Your task to perform on an android device: Open Google Maps and go to "Timeline" Image 0: 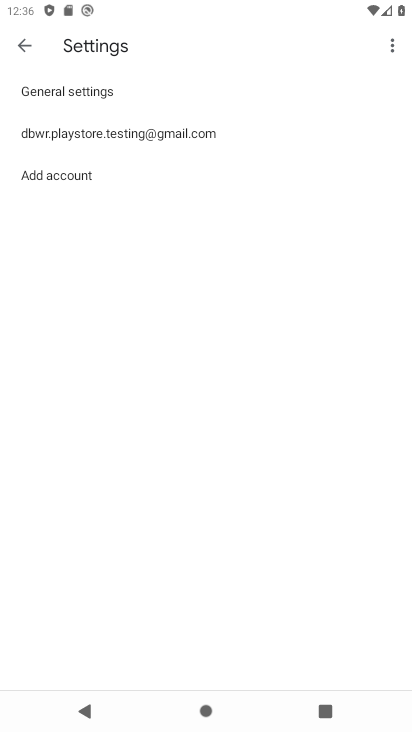
Step 0: click (20, 43)
Your task to perform on an android device: Open Google Maps and go to "Timeline" Image 1: 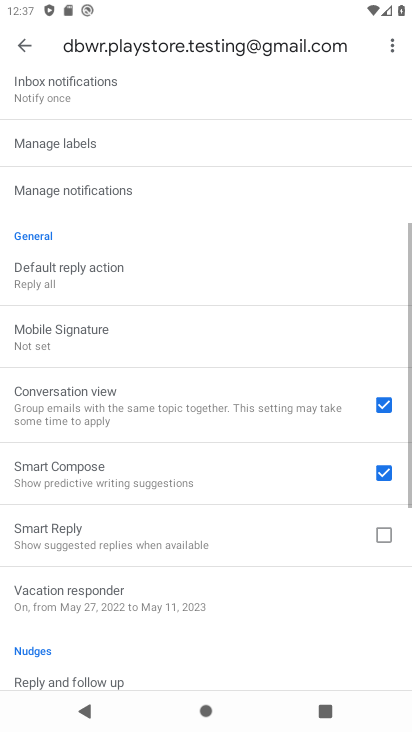
Step 1: press home button
Your task to perform on an android device: Open Google Maps and go to "Timeline" Image 2: 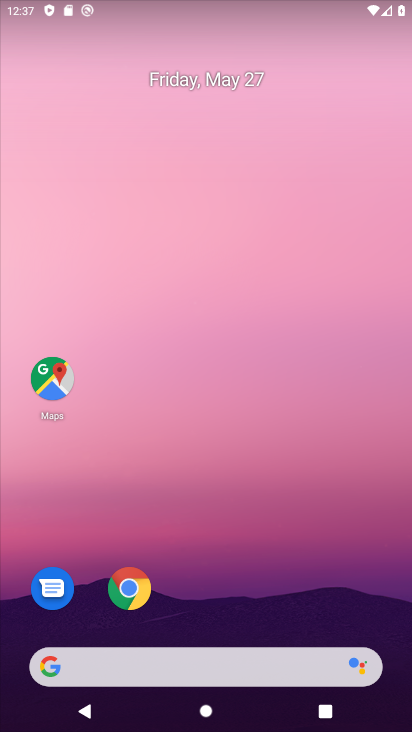
Step 2: drag from (204, 602) to (168, 89)
Your task to perform on an android device: Open Google Maps and go to "Timeline" Image 3: 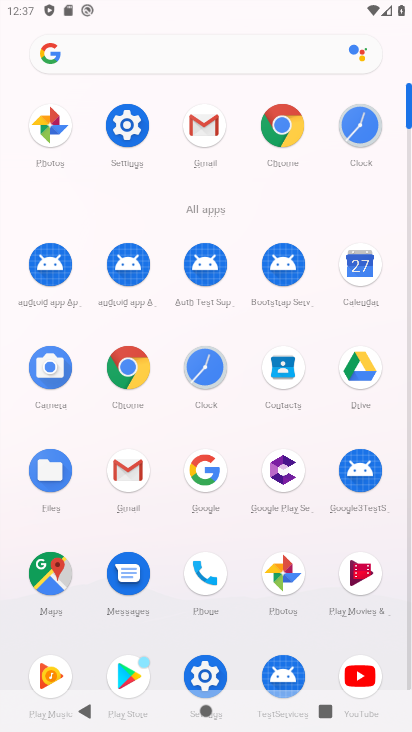
Step 3: click (54, 571)
Your task to perform on an android device: Open Google Maps and go to "Timeline" Image 4: 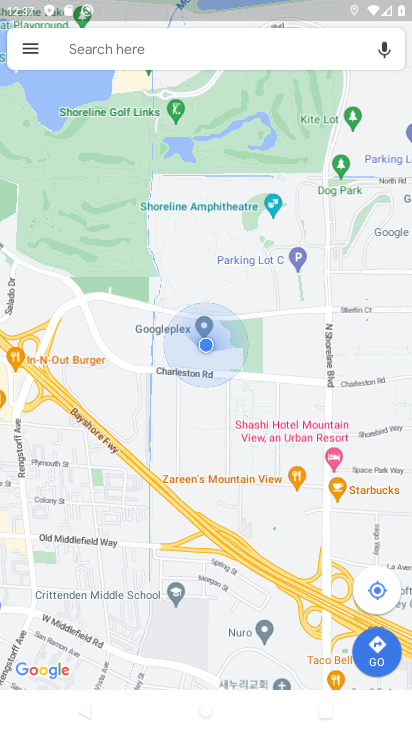
Step 4: click (23, 53)
Your task to perform on an android device: Open Google Maps and go to "Timeline" Image 5: 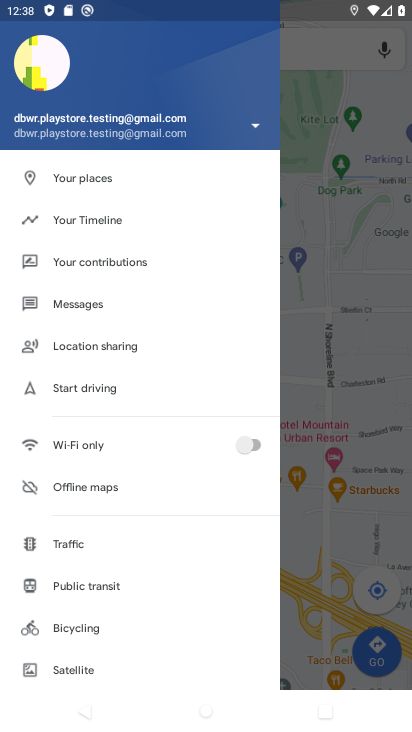
Step 5: click (77, 224)
Your task to perform on an android device: Open Google Maps and go to "Timeline" Image 6: 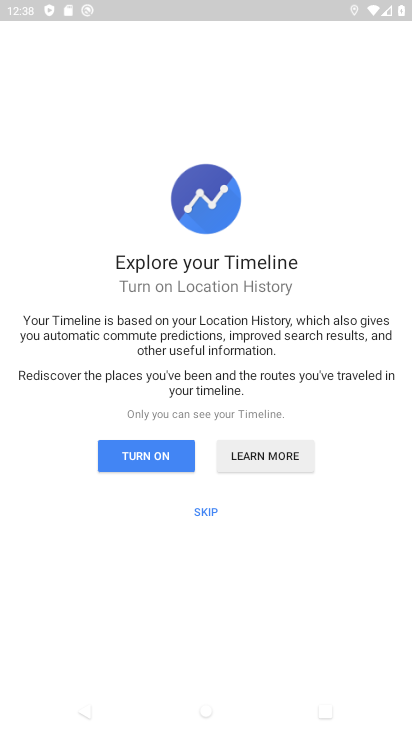
Step 6: task complete